Your task to perform on an android device: change the clock display to show seconds Image 0: 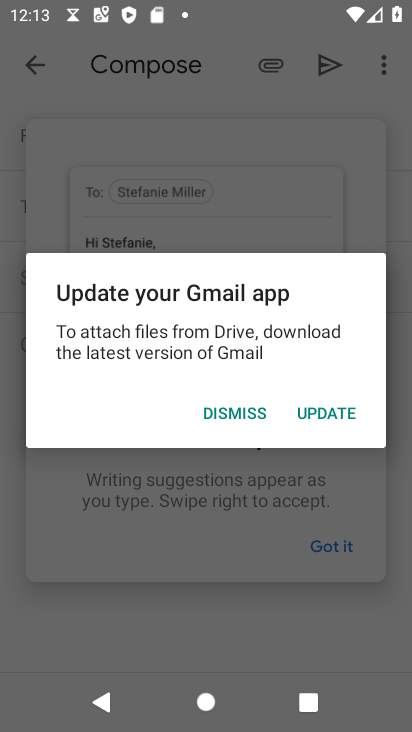
Step 0: press home button
Your task to perform on an android device: change the clock display to show seconds Image 1: 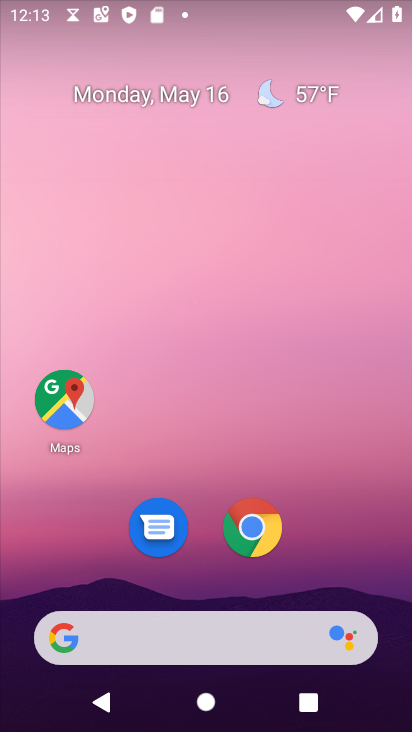
Step 1: drag from (198, 584) to (244, 100)
Your task to perform on an android device: change the clock display to show seconds Image 2: 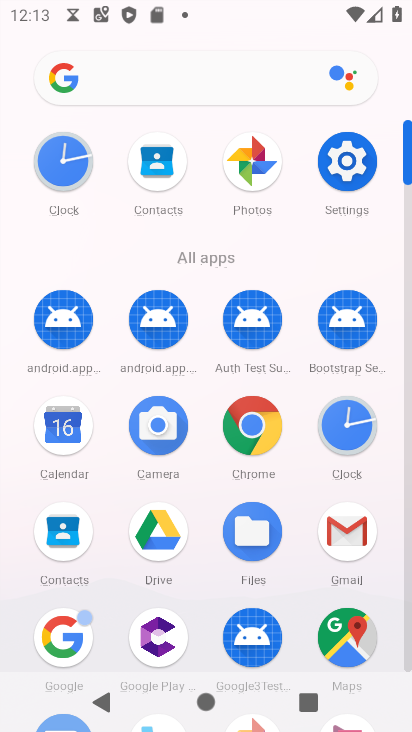
Step 2: click (354, 453)
Your task to perform on an android device: change the clock display to show seconds Image 3: 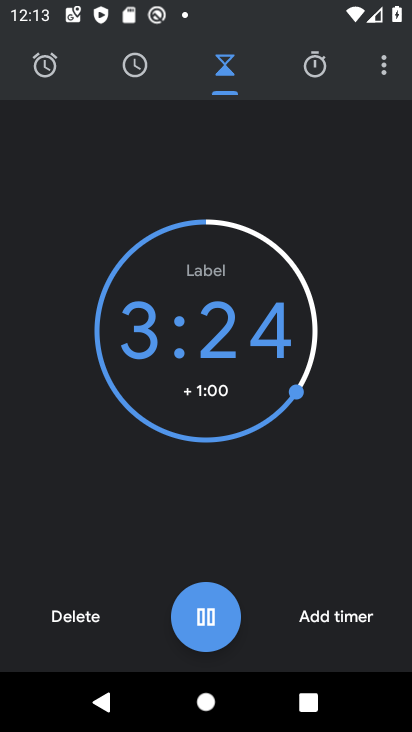
Step 3: click (385, 73)
Your task to perform on an android device: change the clock display to show seconds Image 4: 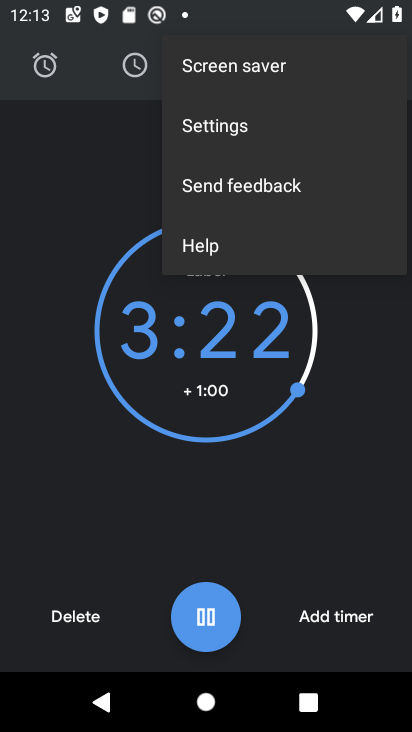
Step 4: click (246, 126)
Your task to perform on an android device: change the clock display to show seconds Image 5: 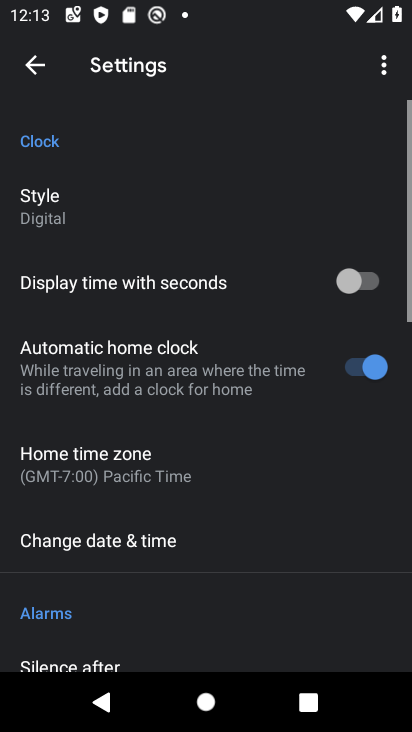
Step 5: click (31, 212)
Your task to perform on an android device: change the clock display to show seconds Image 6: 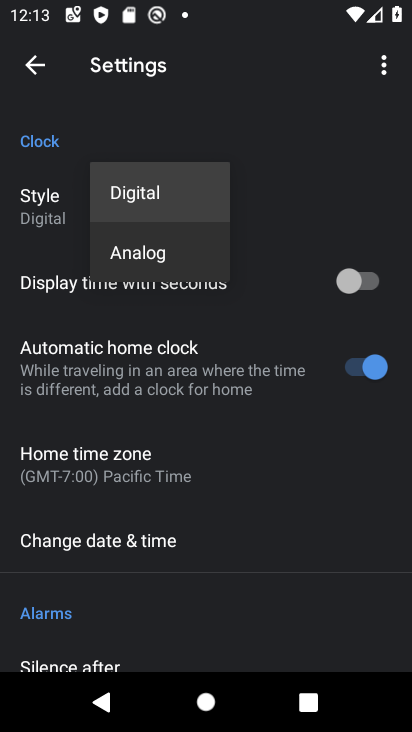
Step 6: click (162, 255)
Your task to perform on an android device: change the clock display to show seconds Image 7: 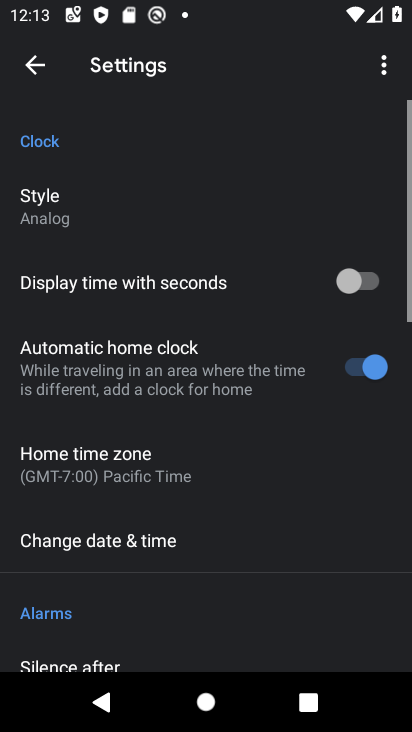
Step 7: click (379, 285)
Your task to perform on an android device: change the clock display to show seconds Image 8: 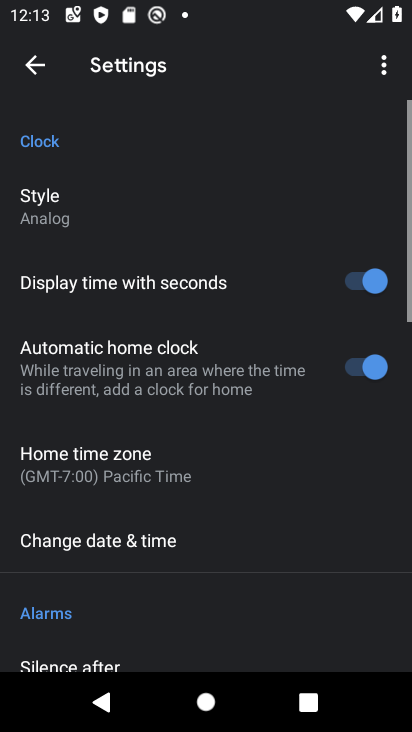
Step 8: task complete